Your task to perform on an android device: open app "Clock" Image 0: 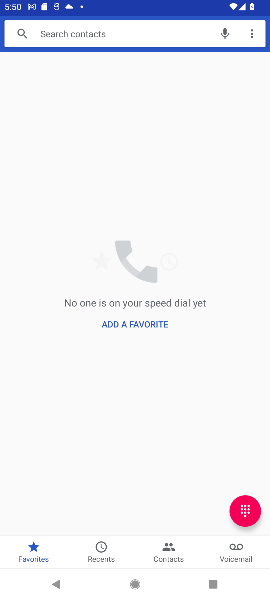
Step 0: press home button
Your task to perform on an android device: open app "Clock" Image 1: 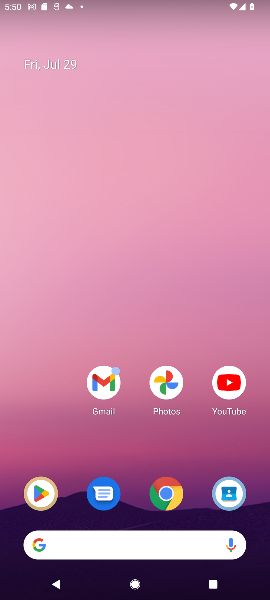
Step 1: drag from (158, 594) to (158, 83)
Your task to perform on an android device: open app "Clock" Image 2: 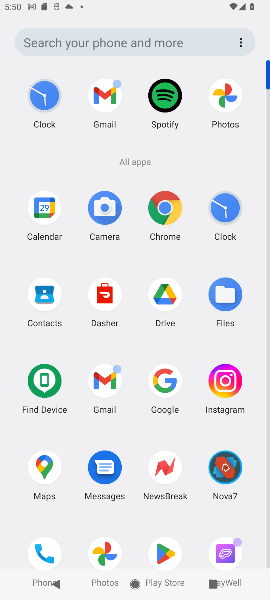
Step 2: click (43, 99)
Your task to perform on an android device: open app "Clock" Image 3: 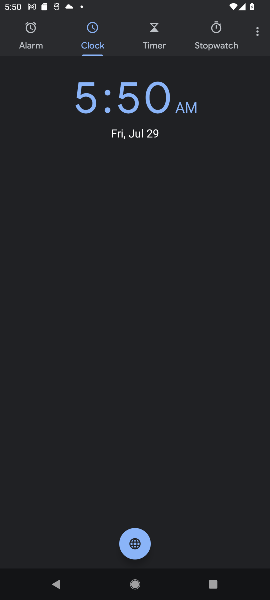
Step 3: task complete